Your task to perform on an android device: Go to accessibility settings Image 0: 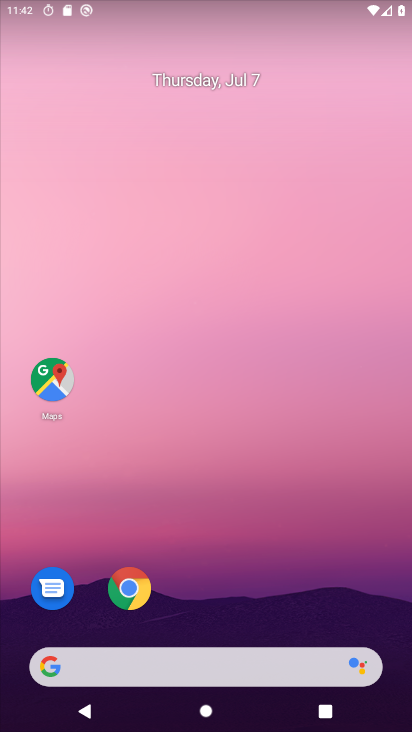
Step 0: press home button
Your task to perform on an android device: Go to accessibility settings Image 1: 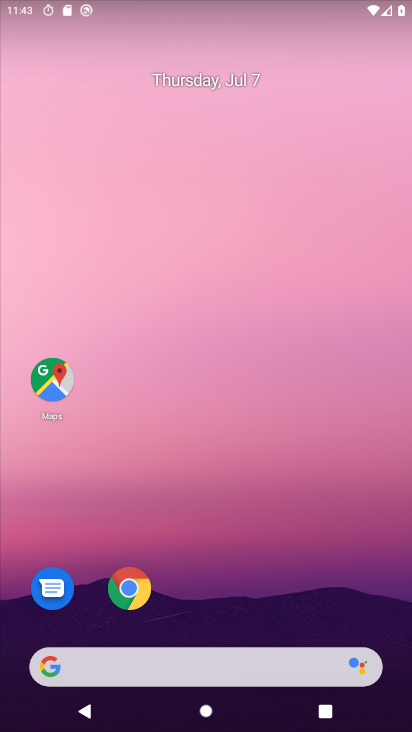
Step 1: drag from (144, 661) to (259, 71)
Your task to perform on an android device: Go to accessibility settings Image 2: 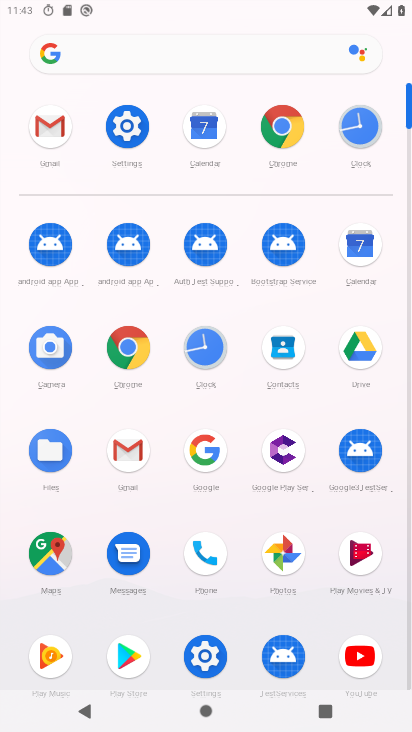
Step 2: click (129, 135)
Your task to perform on an android device: Go to accessibility settings Image 3: 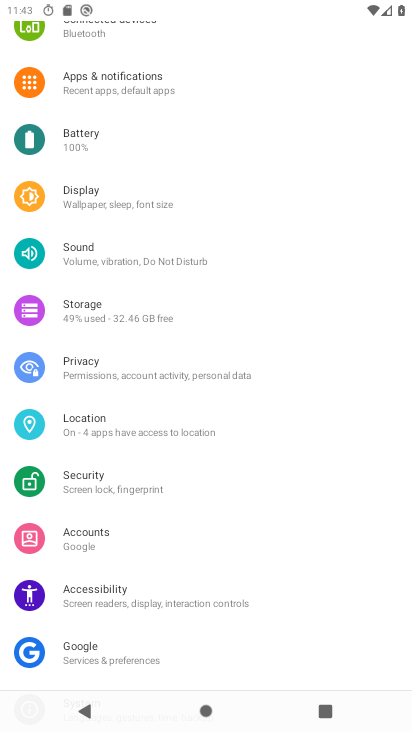
Step 3: click (107, 596)
Your task to perform on an android device: Go to accessibility settings Image 4: 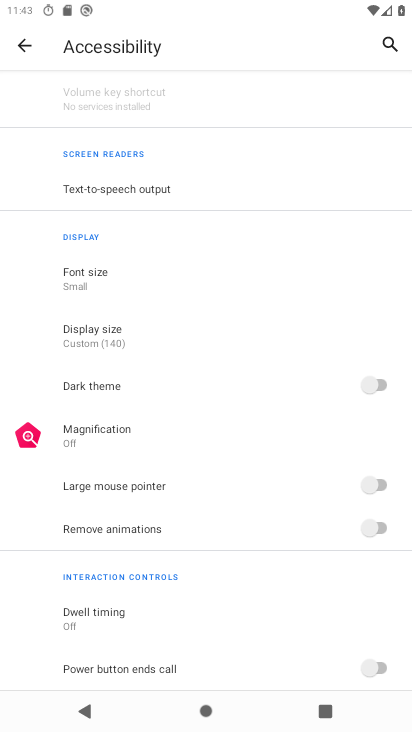
Step 4: task complete